Your task to perform on an android device: turn off location history Image 0: 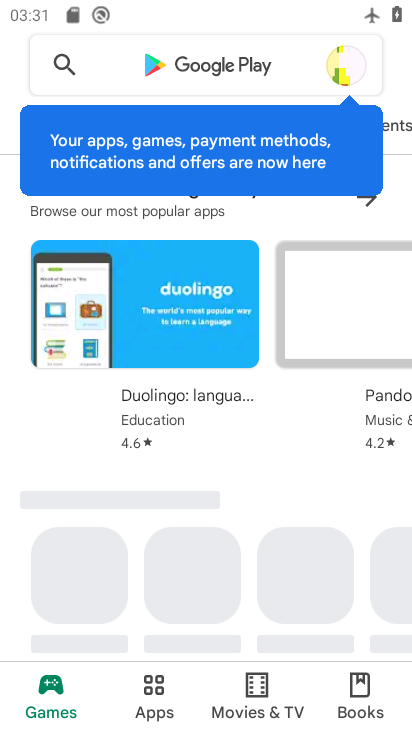
Step 0: press home button
Your task to perform on an android device: turn off location history Image 1: 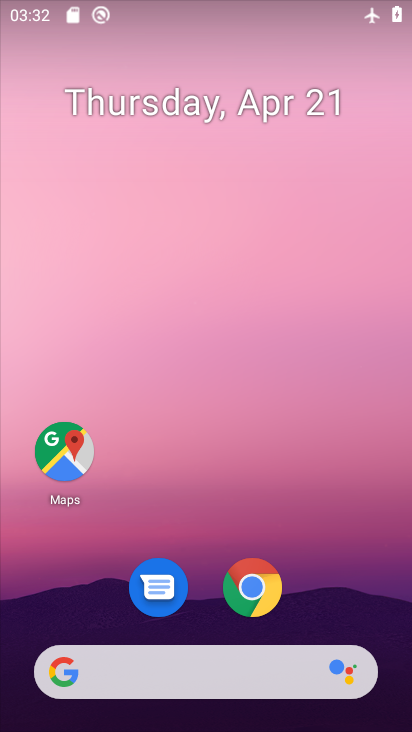
Step 1: drag from (348, 585) to (370, 136)
Your task to perform on an android device: turn off location history Image 2: 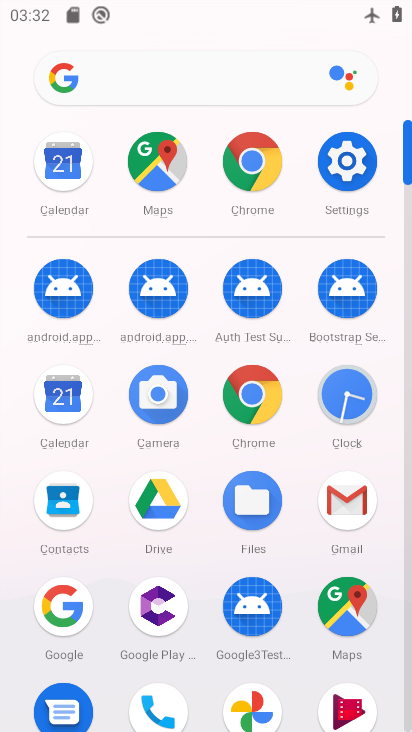
Step 2: click (345, 171)
Your task to perform on an android device: turn off location history Image 3: 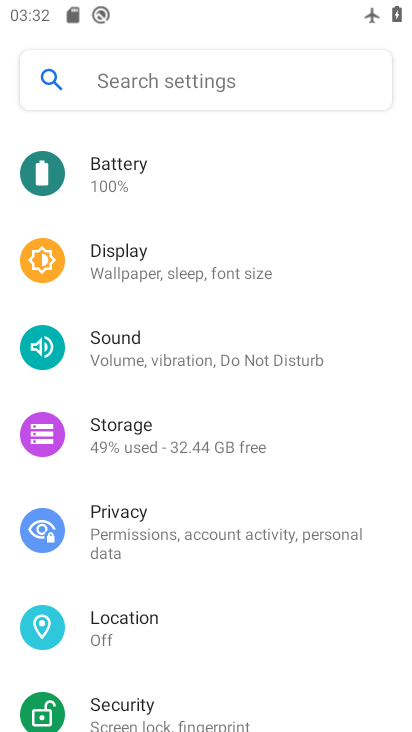
Step 3: drag from (340, 454) to (358, 368)
Your task to perform on an android device: turn off location history Image 4: 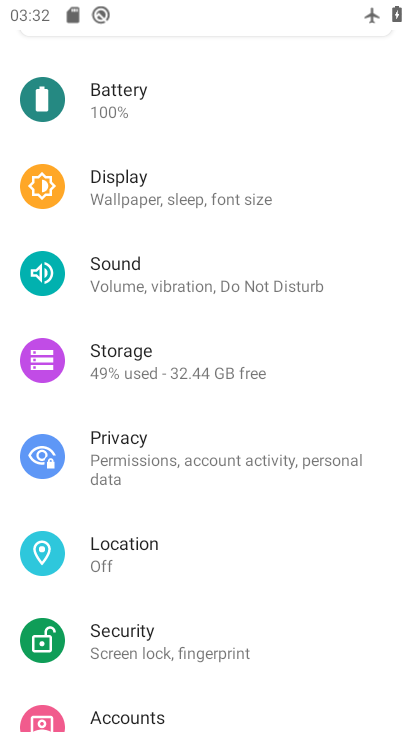
Step 4: drag from (361, 518) to (366, 413)
Your task to perform on an android device: turn off location history Image 5: 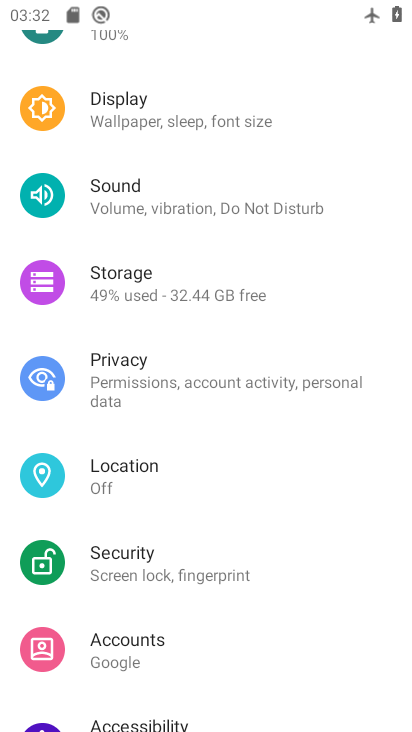
Step 5: drag from (349, 570) to (352, 450)
Your task to perform on an android device: turn off location history Image 6: 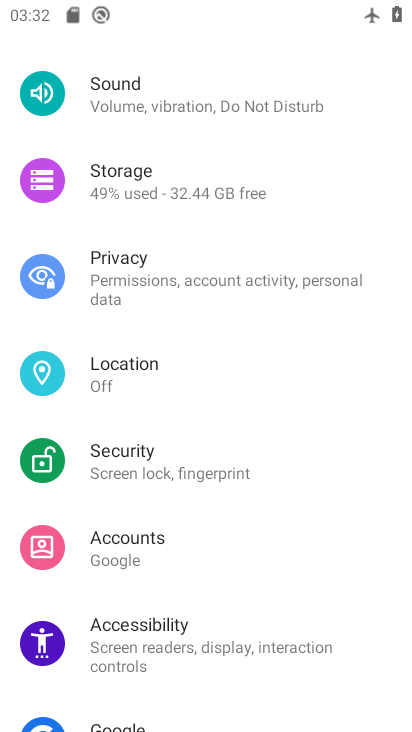
Step 6: drag from (347, 544) to (345, 433)
Your task to perform on an android device: turn off location history Image 7: 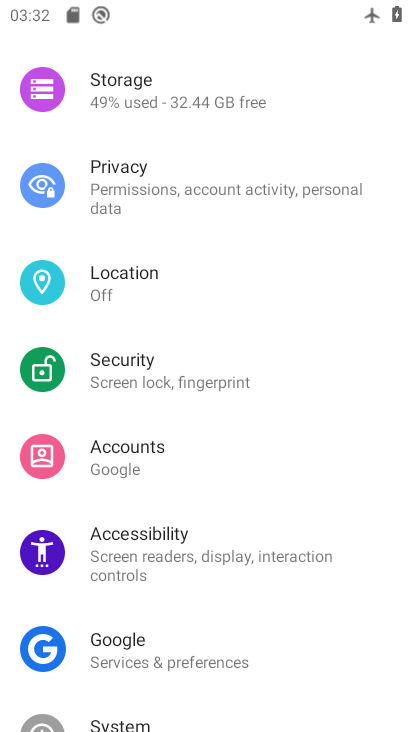
Step 7: drag from (349, 615) to (357, 459)
Your task to perform on an android device: turn off location history Image 8: 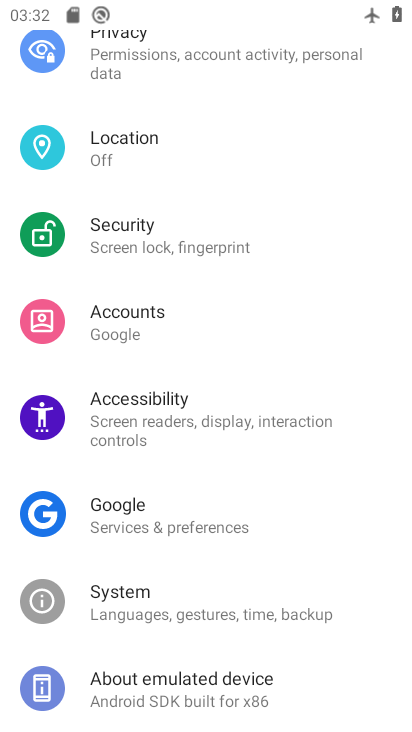
Step 8: drag from (364, 618) to (370, 502)
Your task to perform on an android device: turn off location history Image 9: 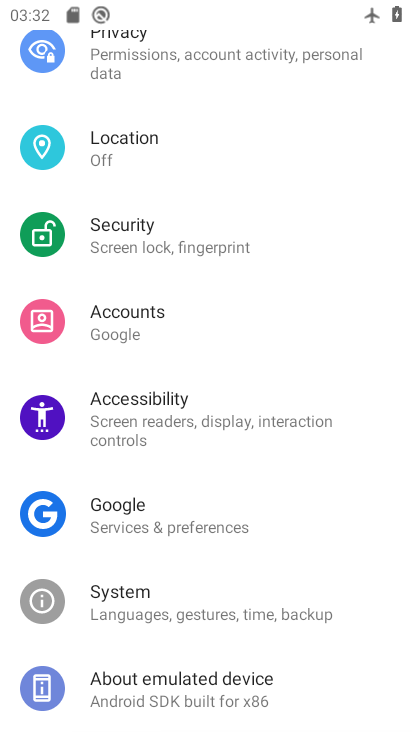
Step 9: drag from (353, 383) to (356, 520)
Your task to perform on an android device: turn off location history Image 10: 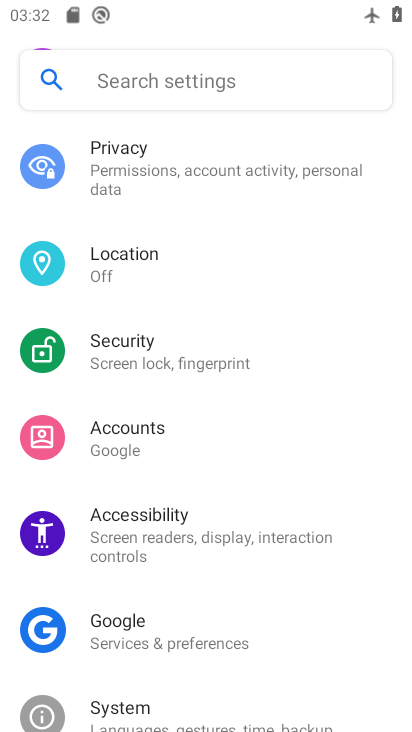
Step 10: drag from (346, 376) to (338, 485)
Your task to perform on an android device: turn off location history Image 11: 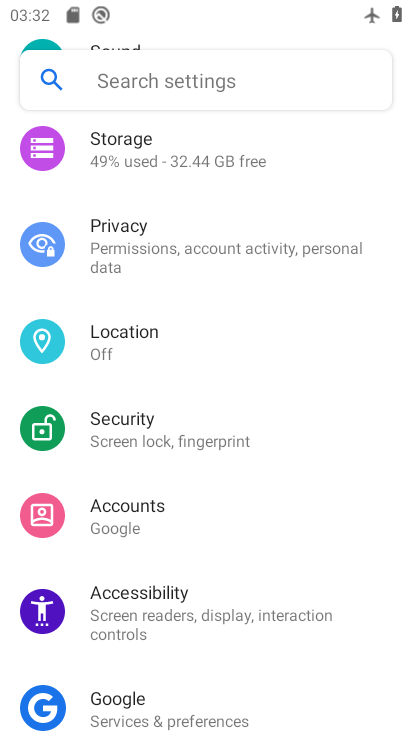
Step 11: drag from (321, 377) to (319, 482)
Your task to perform on an android device: turn off location history Image 12: 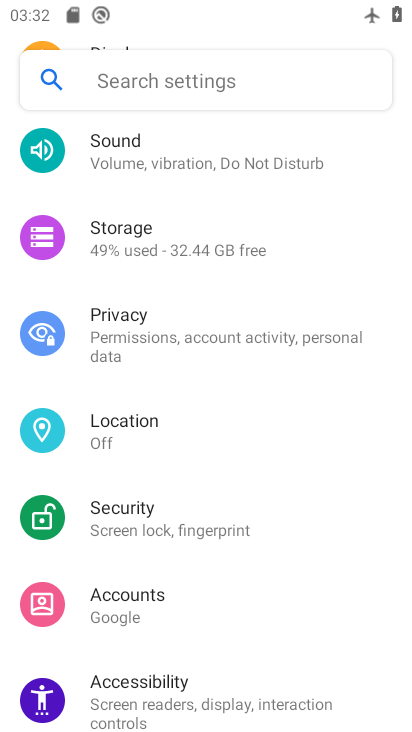
Step 12: click (169, 451)
Your task to perform on an android device: turn off location history Image 13: 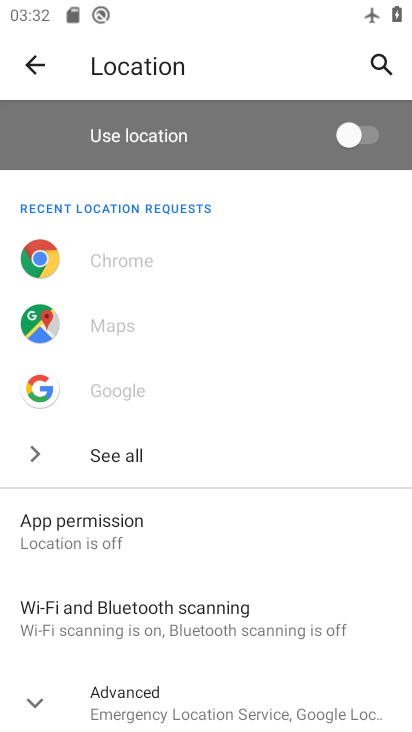
Step 13: drag from (250, 559) to (282, 376)
Your task to perform on an android device: turn off location history Image 14: 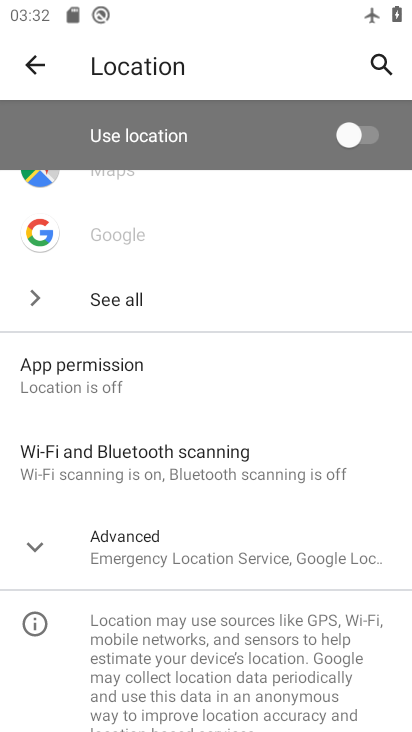
Step 14: drag from (262, 589) to (280, 420)
Your task to perform on an android device: turn off location history Image 15: 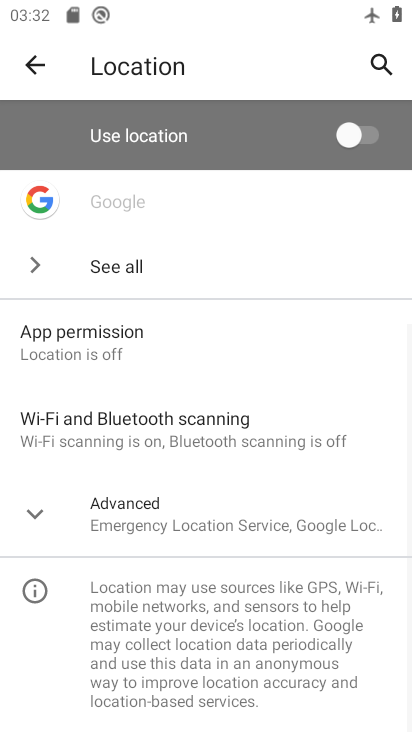
Step 15: click (267, 517)
Your task to perform on an android device: turn off location history Image 16: 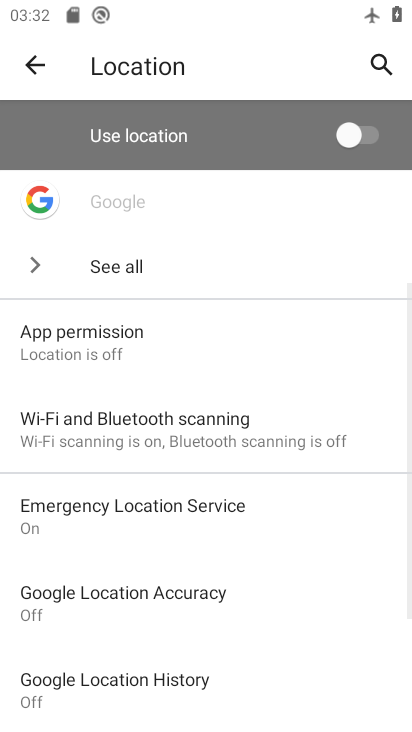
Step 16: drag from (275, 623) to (304, 447)
Your task to perform on an android device: turn off location history Image 17: 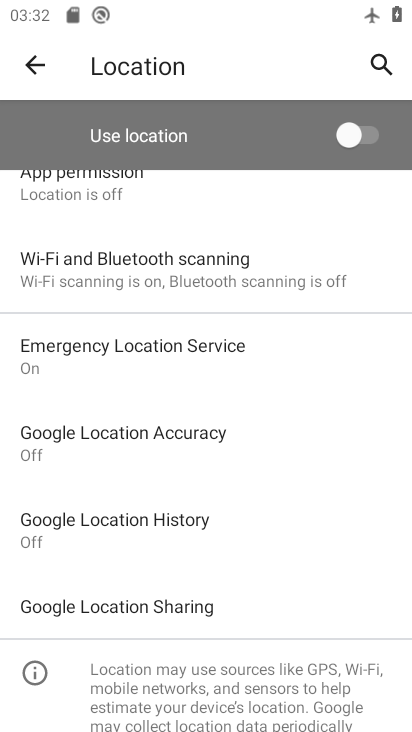
Step 17: click (179, 534)
Your task to perform on an android device: turn off location history Image 18: 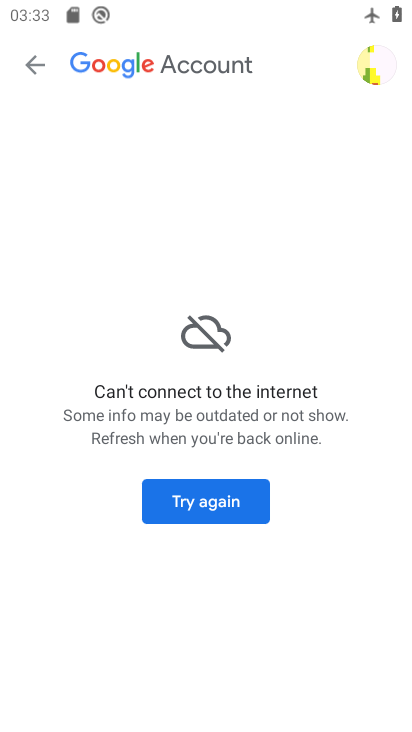
Step 18: task complete